Your task to perform on an android device: Search for hotels in Buenos aires Image 0: 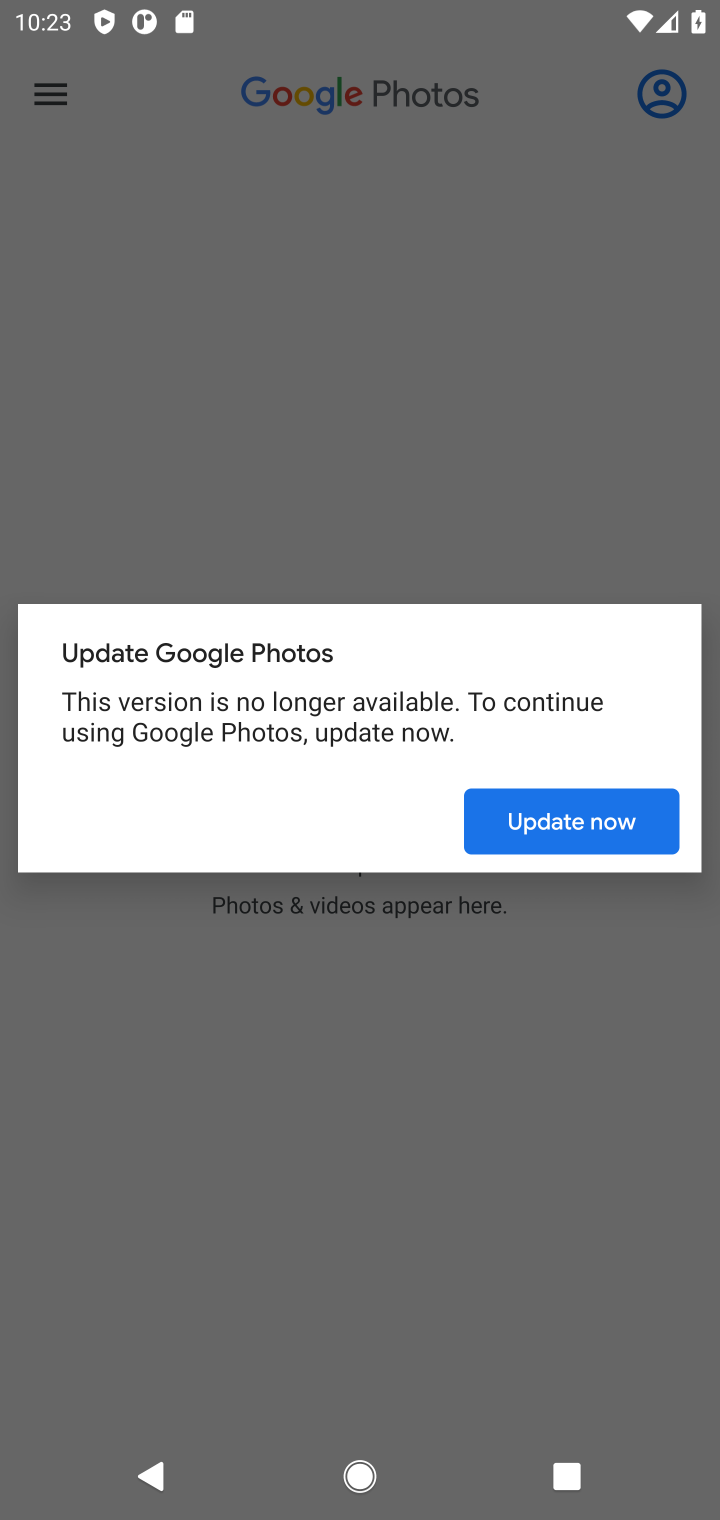
Step 0: press home button
Your task to perform on an android device: Search for hotels in Buenos aires Image 1: 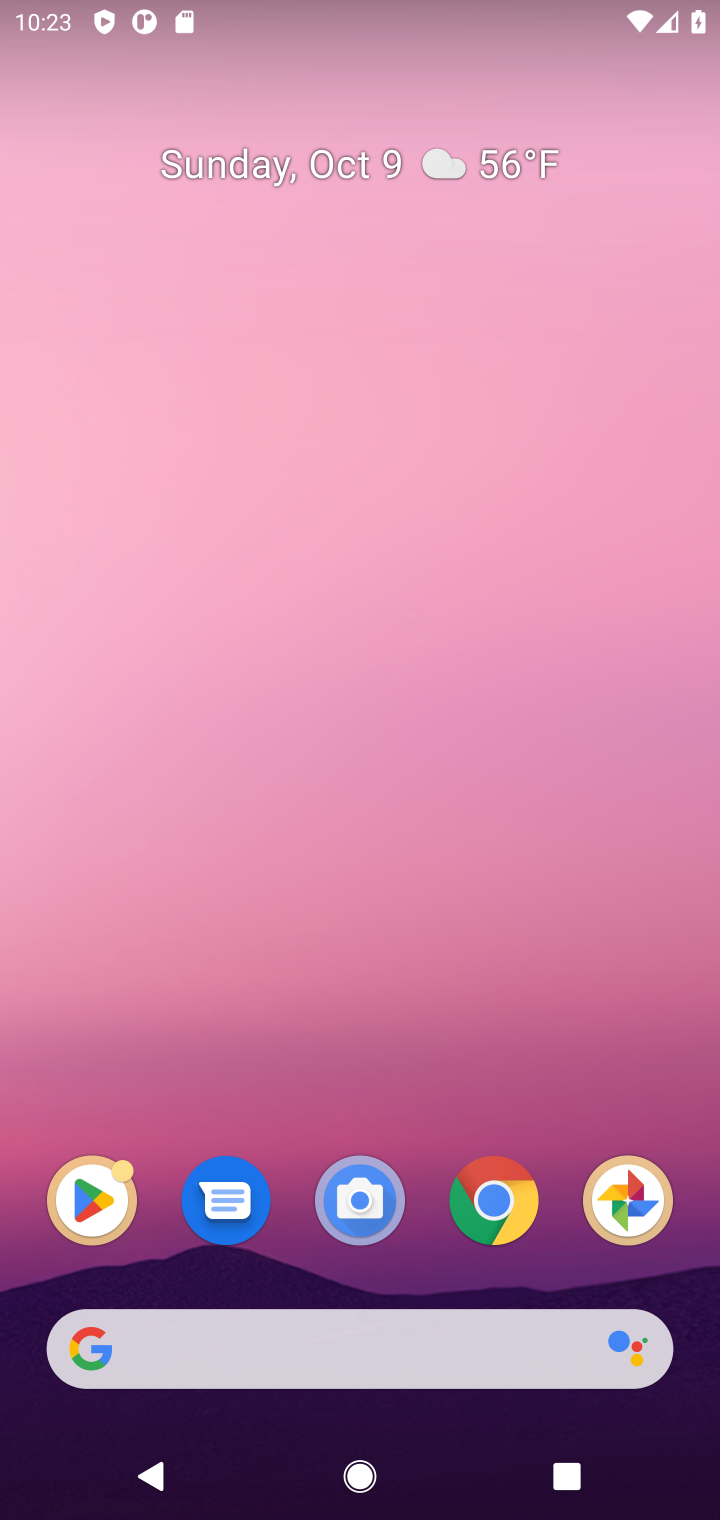
Step 1: click (511, 1207)
Your task to perform on an android device: Search for hotels in Buenos aires Image 2: 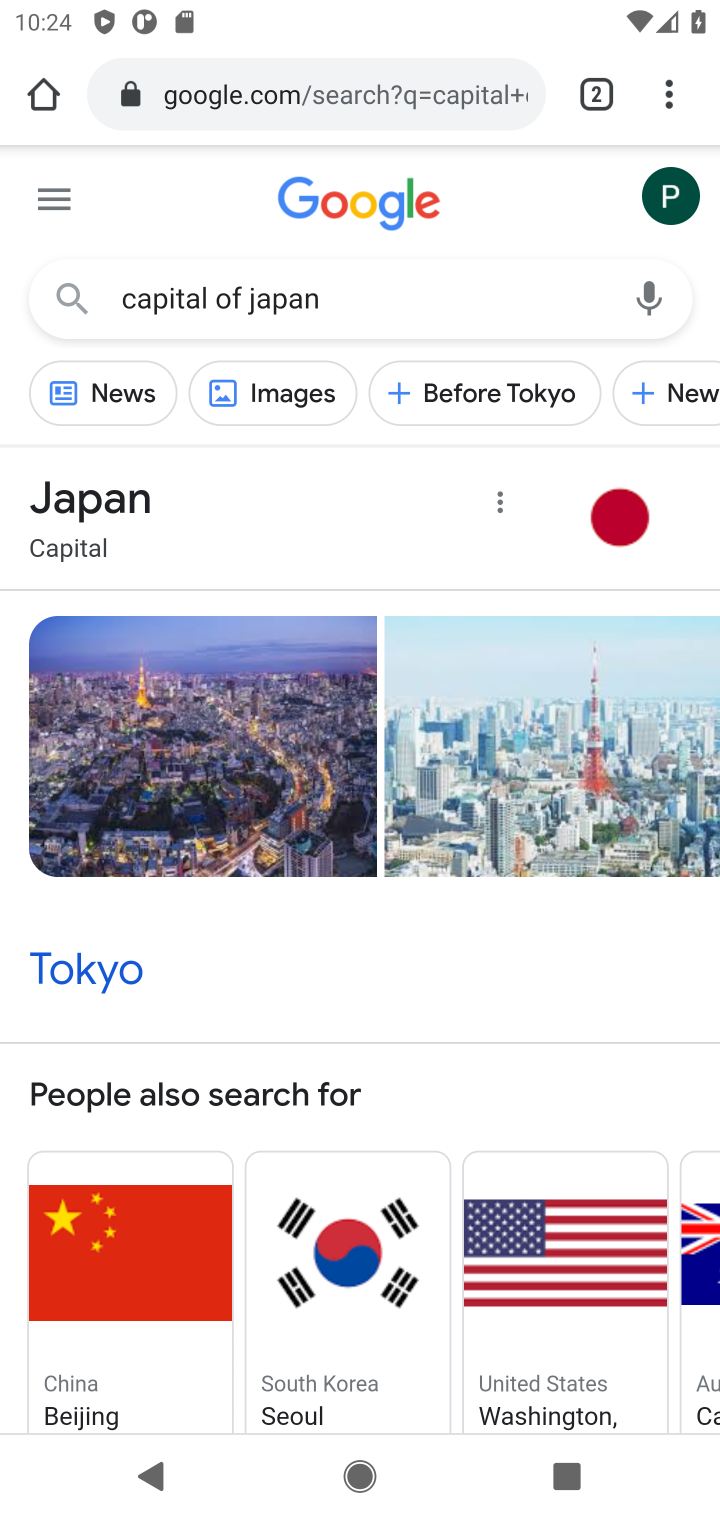
Step 2: click (369, 310)
Your task to perform on an android device: Search for hotels in Buenos aires Image 3: 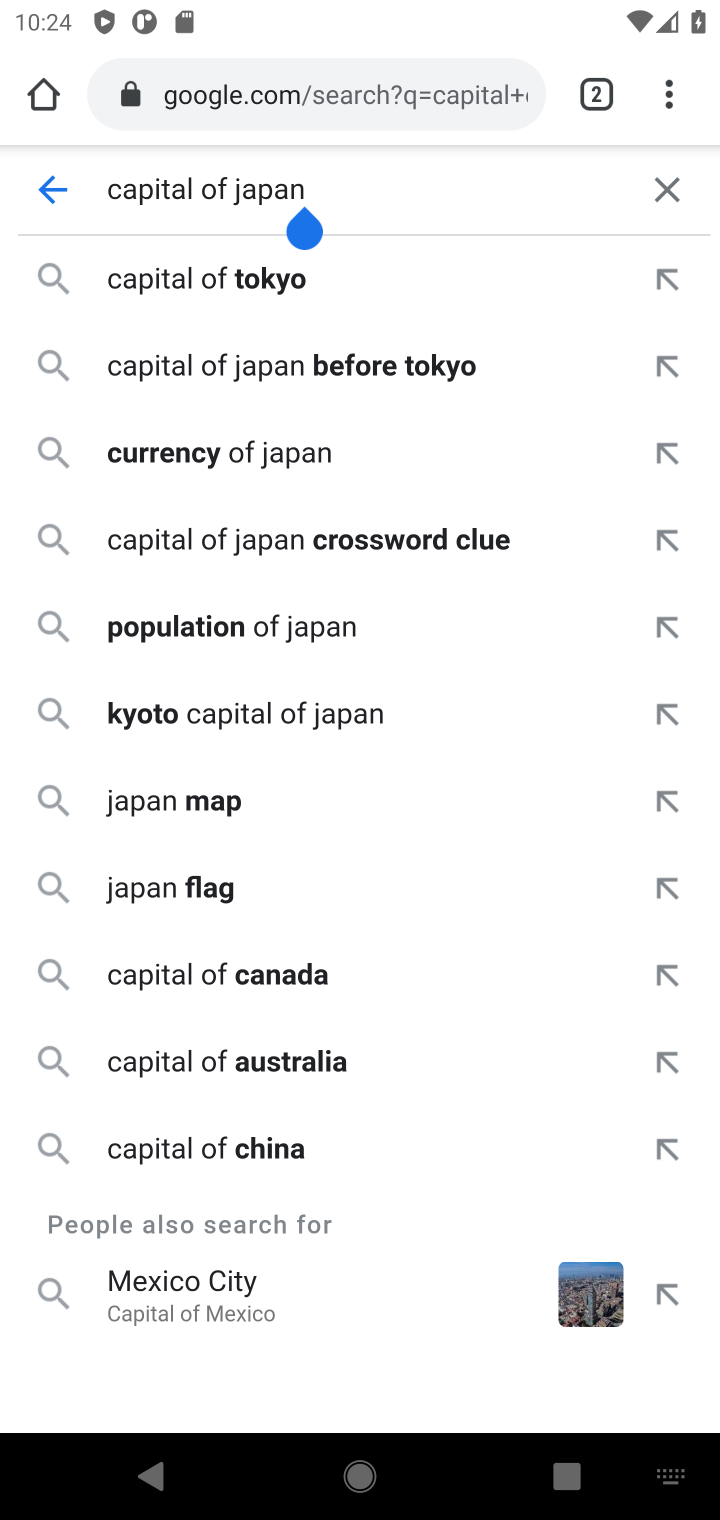
Step 3: click (655, 201)
Your task to perform on an android device: Search for hotels in Buenos aires Image 4: 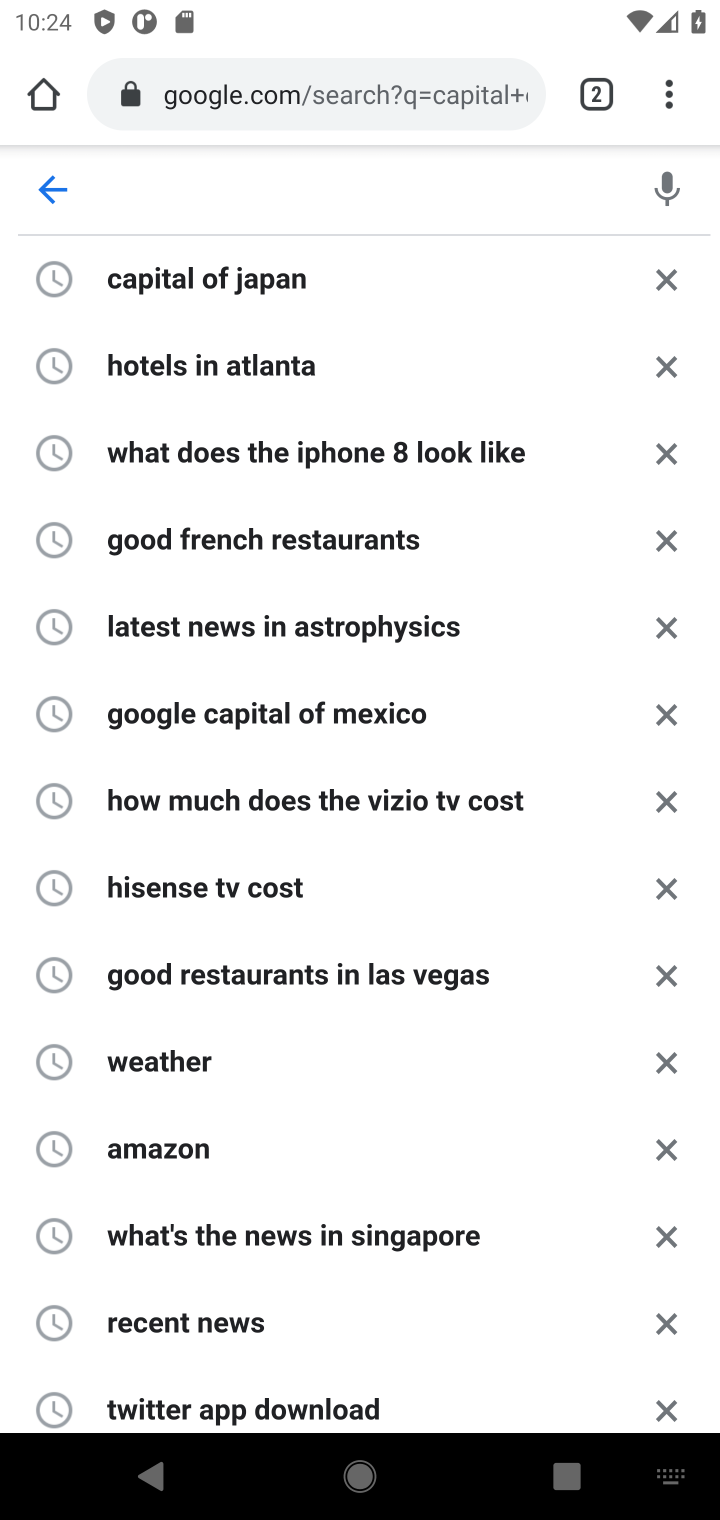
Step 4: type "hotels in Buenos aires"
Your task to perform on an android device: Search for hotels in Buenos aires Image 5: 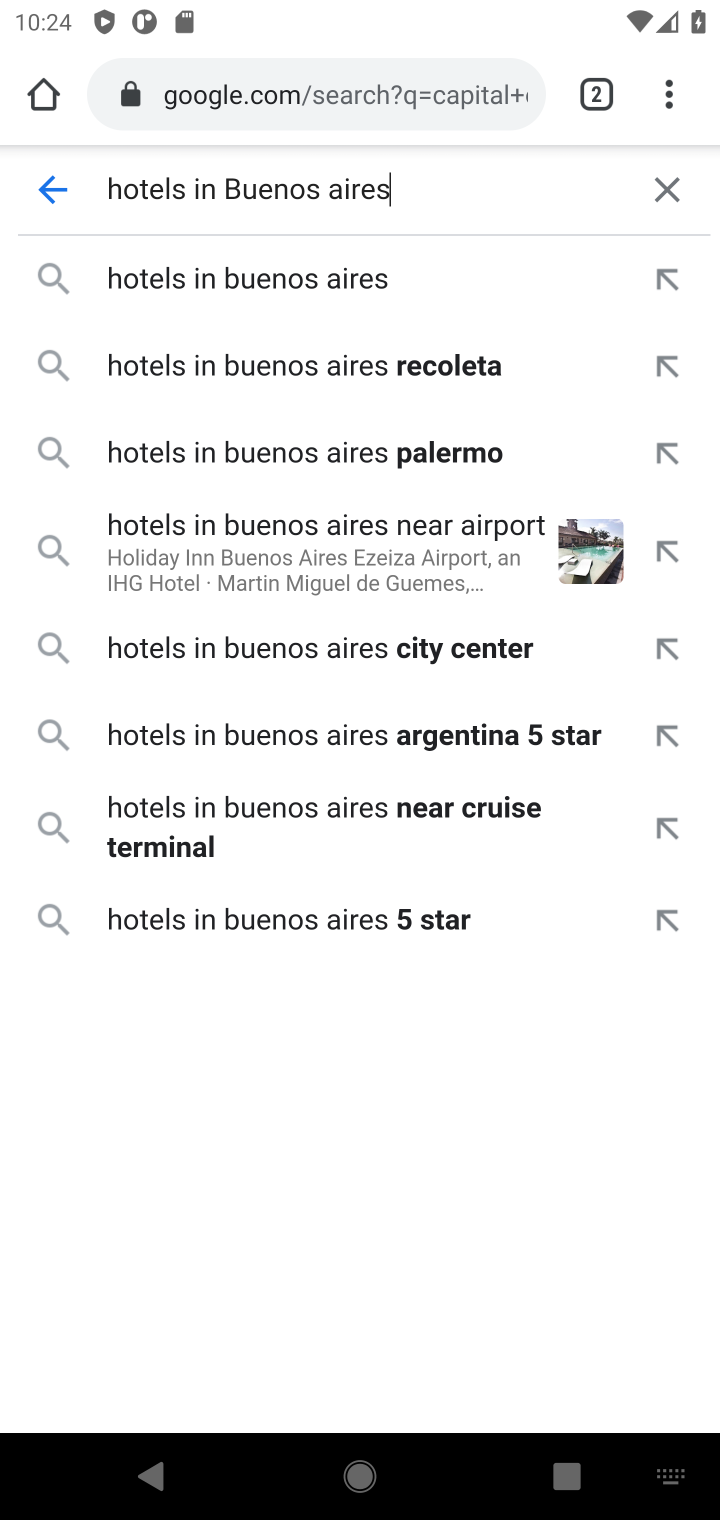
Step 5: click (355, 273)
Your task to perform on an android device: Search for hotels in Buenos aires Image 6: 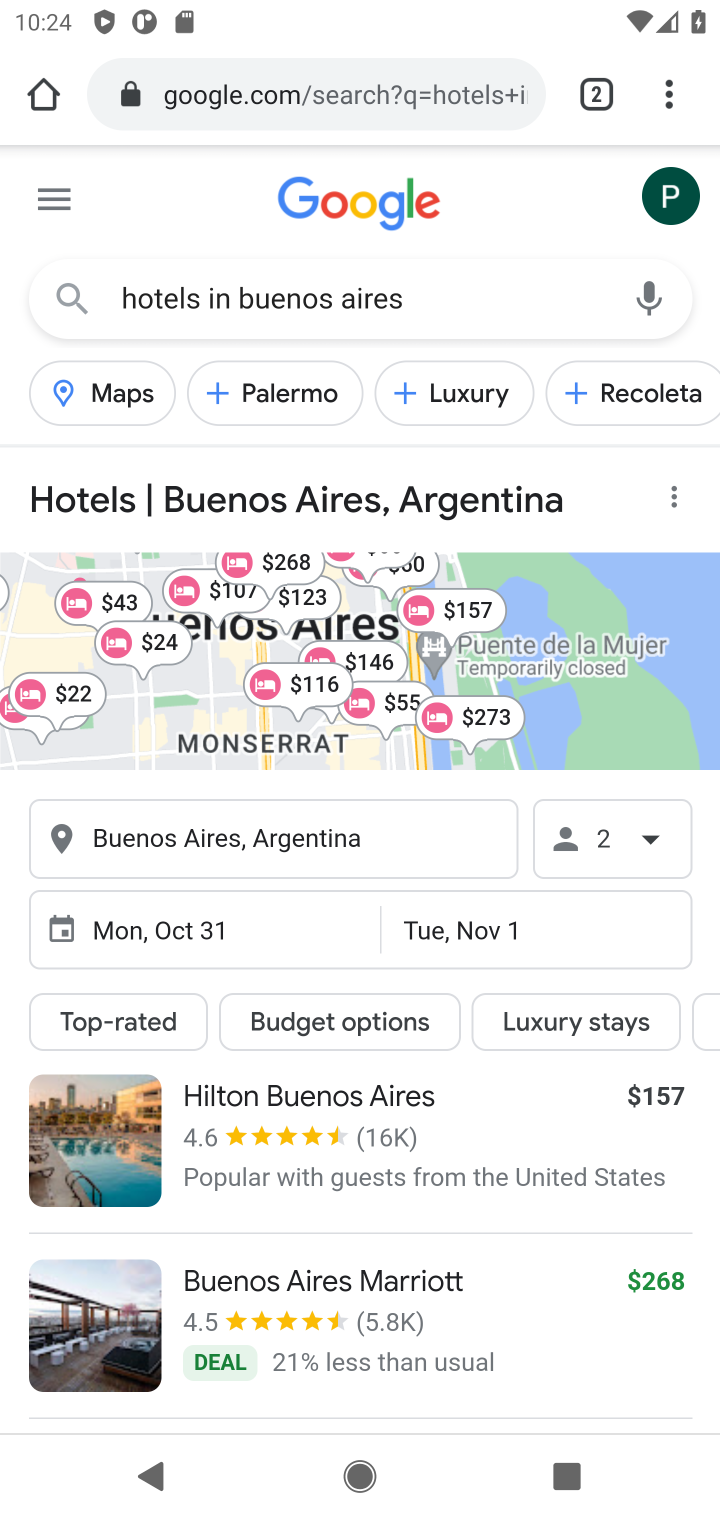
Step 6: task complete